Your task to perform on an android device: Open battery settings Image 0: 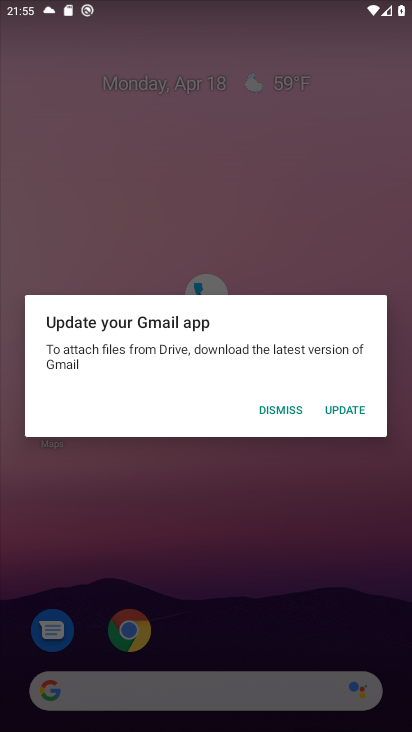
Step 0: press home button
Your task to perform on an android device: Open battery settings Image 1: 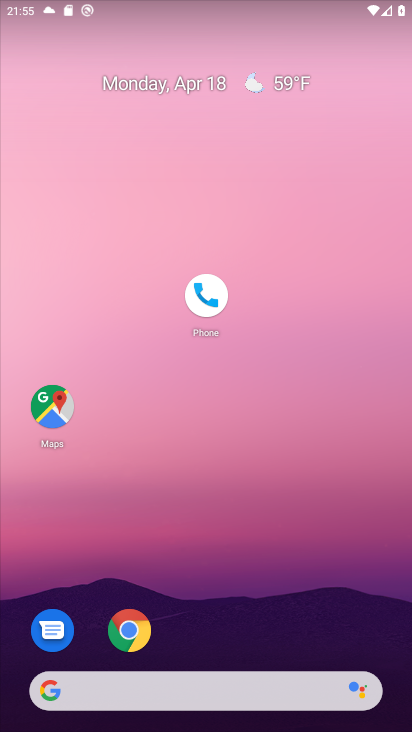
Step 1: drag from (219, 607) to (249, 190)
Your task to perform on an android device: Open battery settings Image 2: 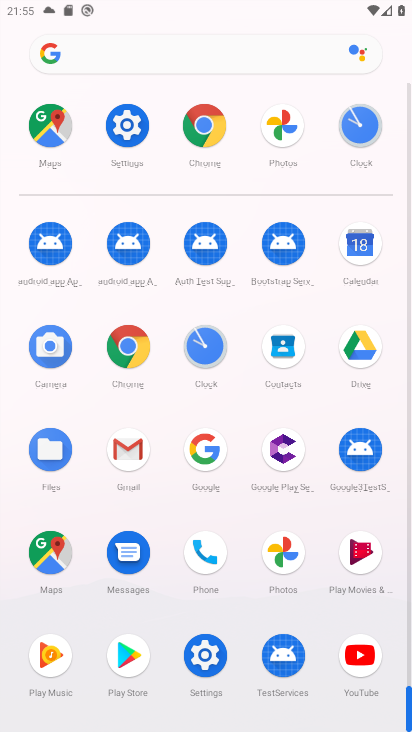
Step 2: click (139, 134)
Your task to perform on an android device: Open battery settings Image 3: 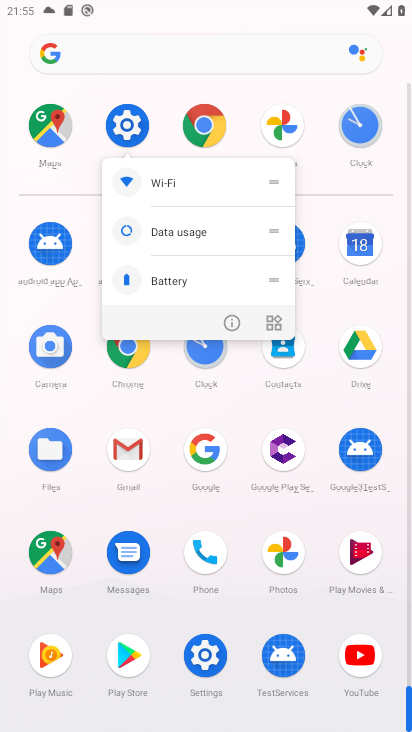
Step 3: click (208, 636)
Your task to perform on an android device: Open battery settings Image 4: 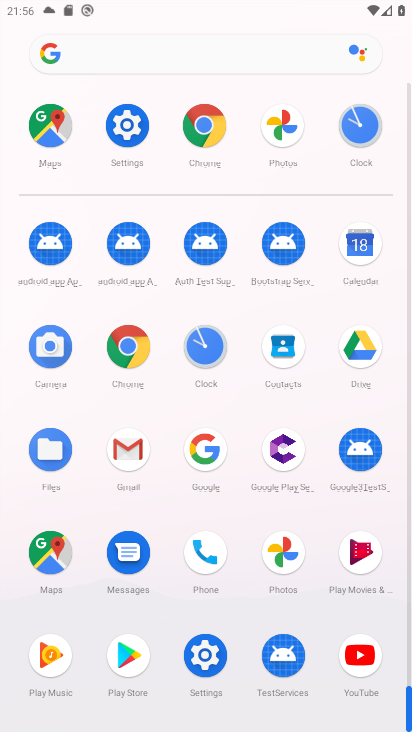
Step 4: click (209, 652)
Your task to perform on an android device: Open battery settings Image 5: 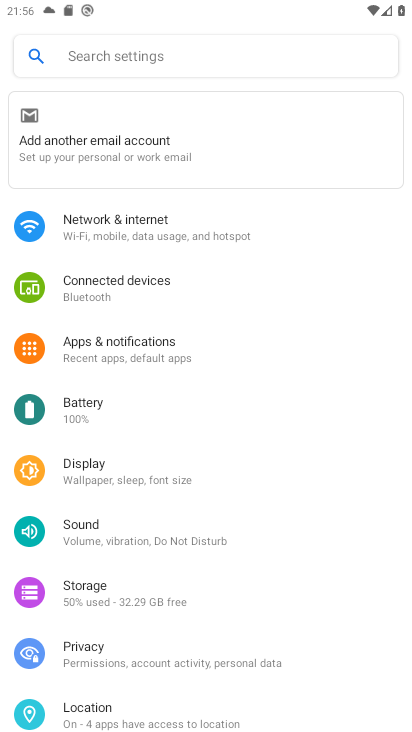
Step 5: click (110, 395)
Your task to perform on an android device: Open battery settings Image 6: 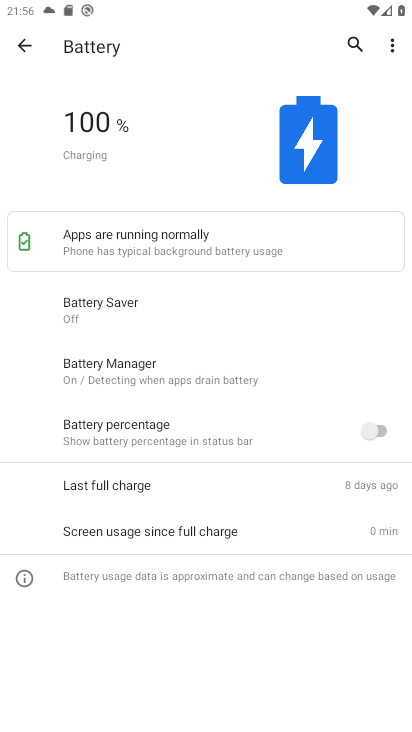
Step 6: click (392, 44)
Your task to perform on an android device: Open battery settings Image 7: 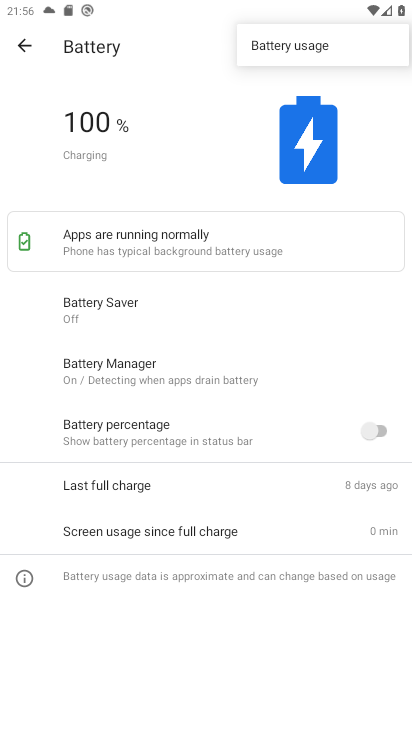
Step 7: click (325, 300)
Your task to perform on an android device: Open battery settings Image 8: 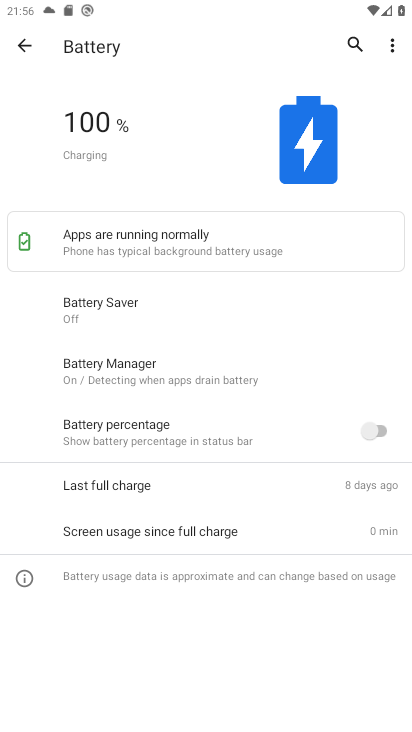
Step 8: task complete